Your task to perform on an android device: Open privacy settings Image 0: 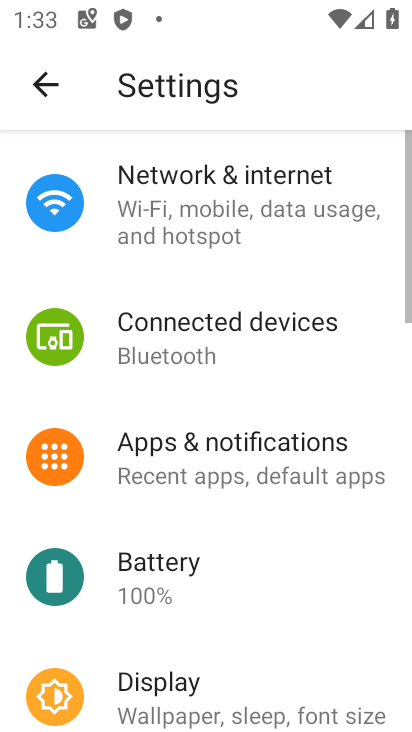
Step 0: drag from (220, 628) to (255, 163)
Your task to perform on an android device: Open privacy settings Image 1: 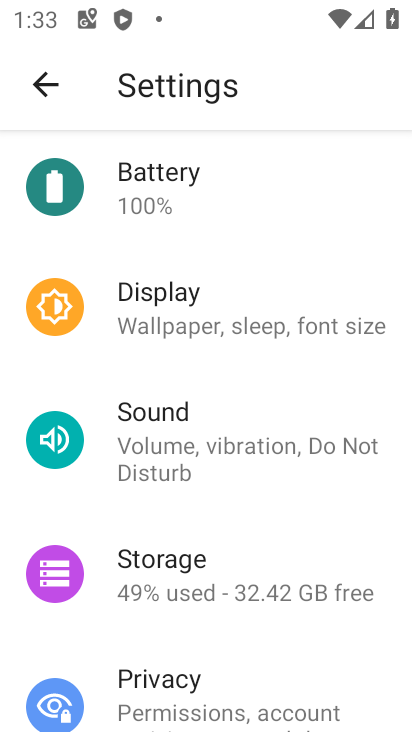
Step 1: click (116, 702)
Your task to perform on an android device: Open privacy settings Image 2: 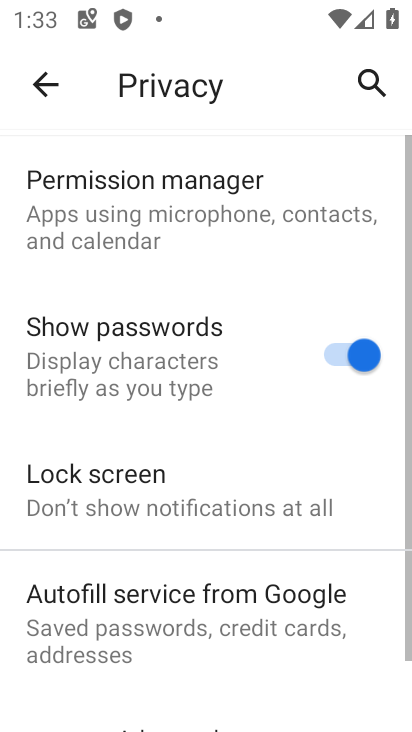
Step 2: task complete